Your task to perform on an android device: Open location settings Image 0: 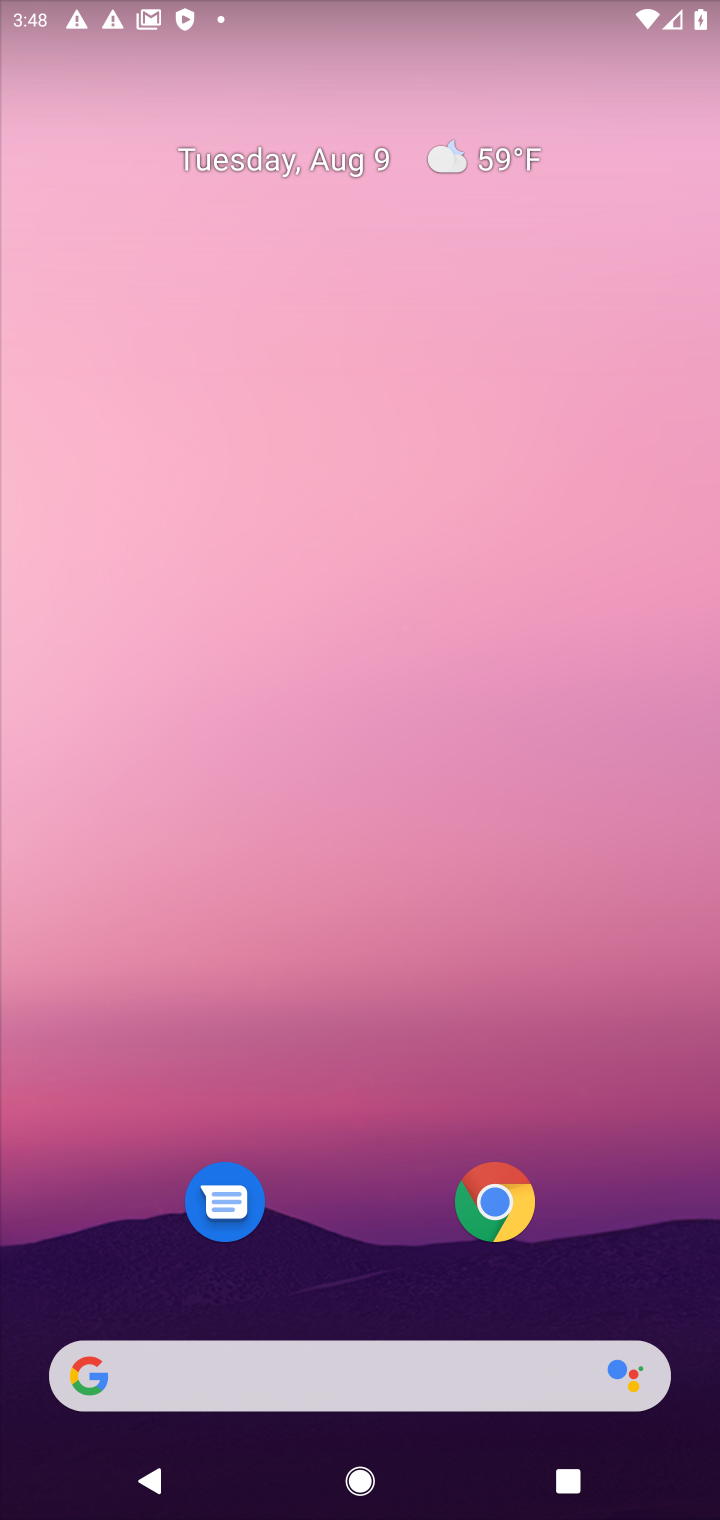
Step 0: drag from (371, 1296) to (438, 52)
Your task to perform on an android device: Open location settings Image 1: 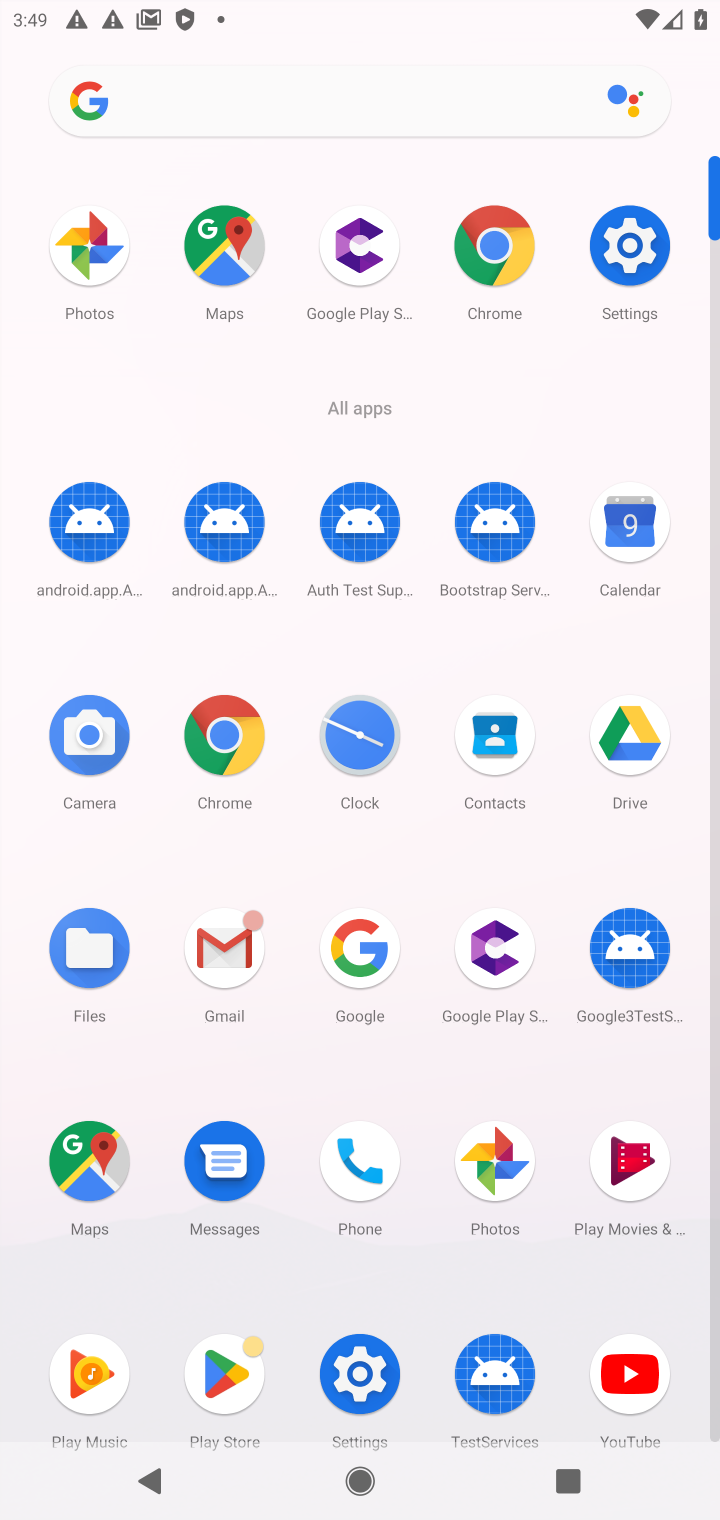
Step 1: click (624, 232)
Your task to perform on an android device: Open location settings Image 2: 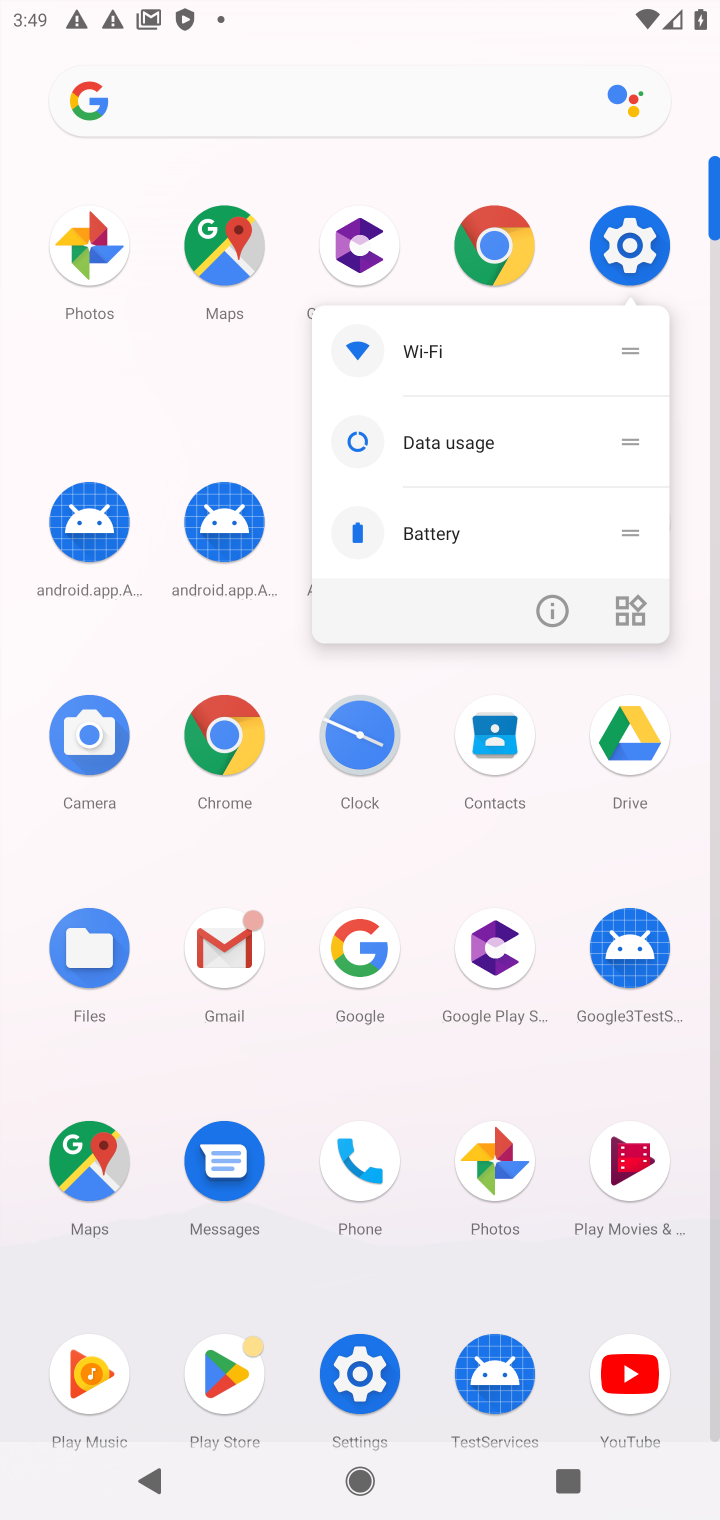
Step 2: click (641, 225)
Your task to perform on an android device: Open location settings Image 3: 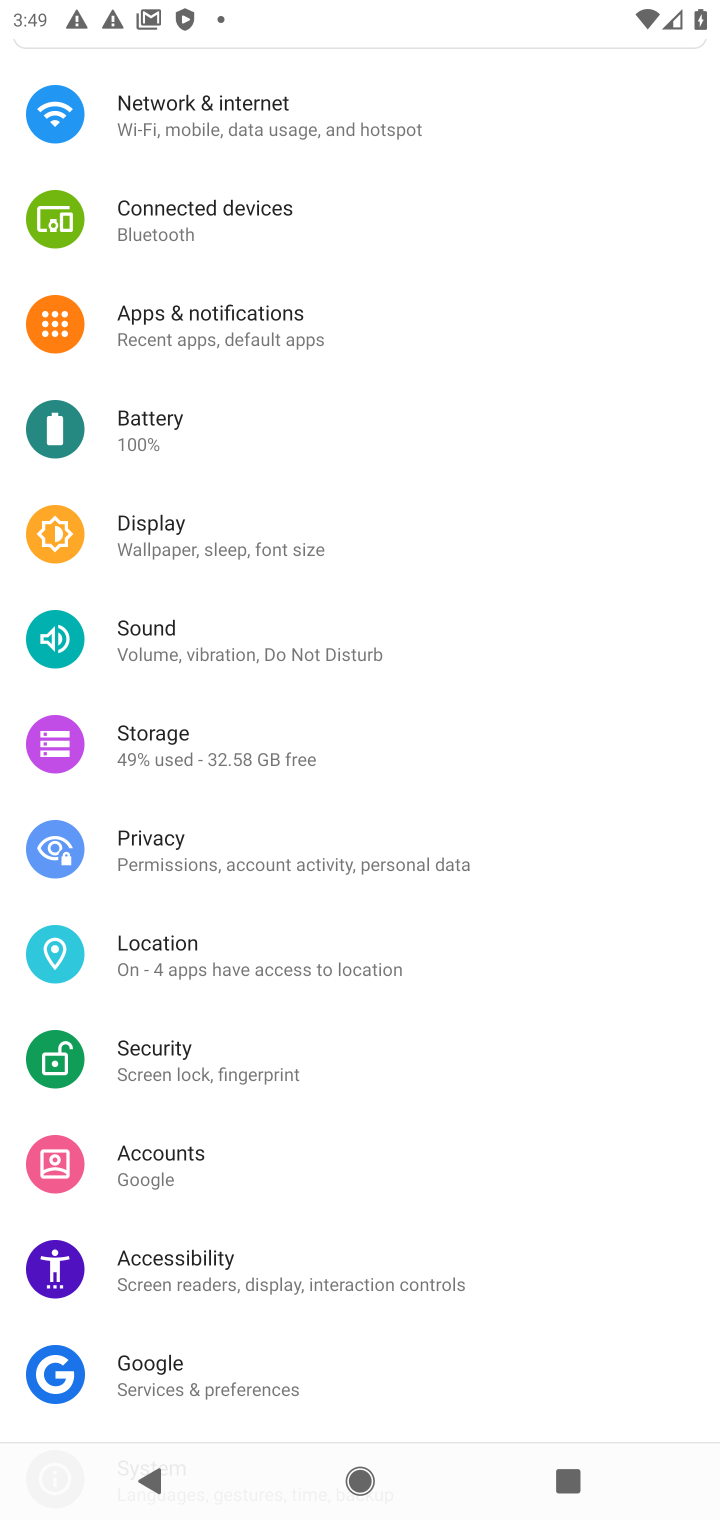
Step 3: click (213, 944)
Your task to perform on an android device: Open location settings Image 4: 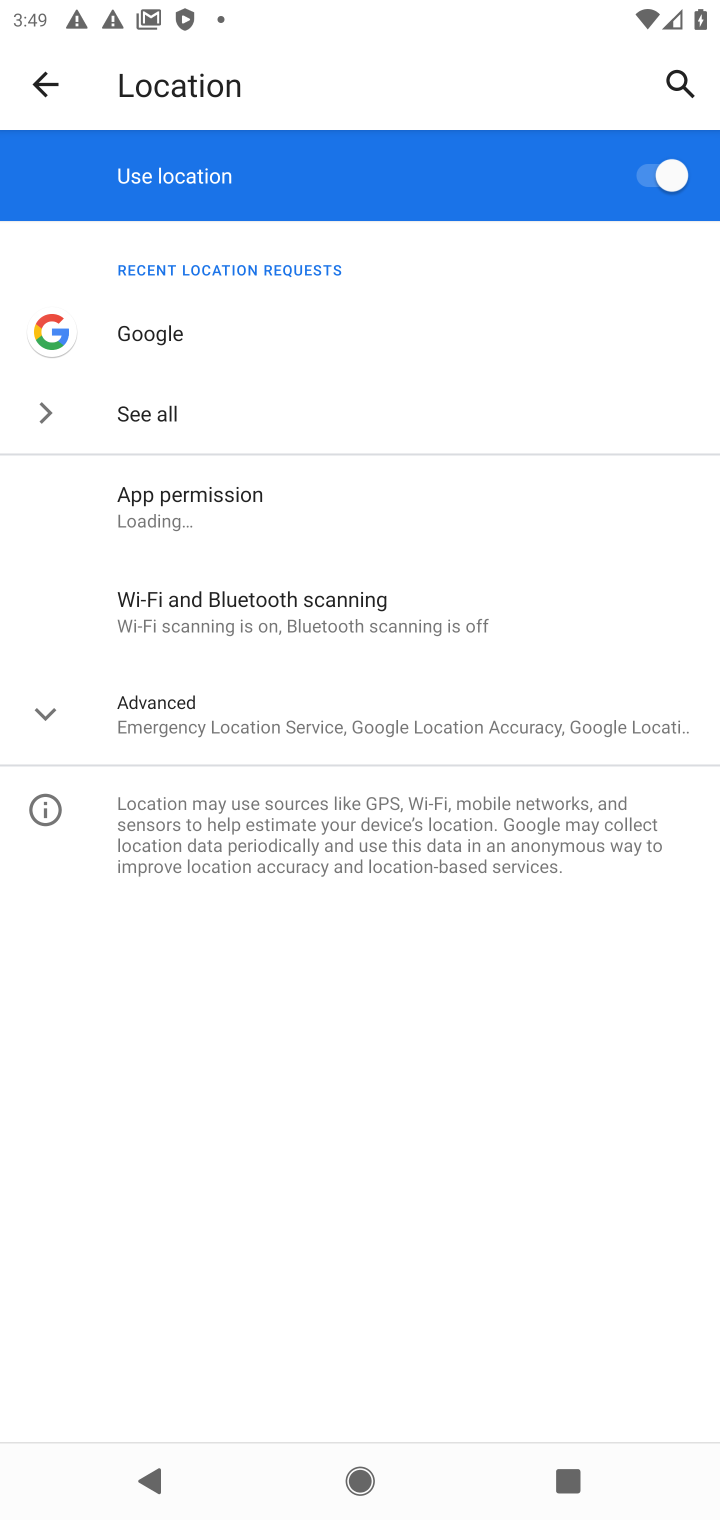
Step 4: click (63, 713)
Your task to perform on an android device: Open location settings Image 5: 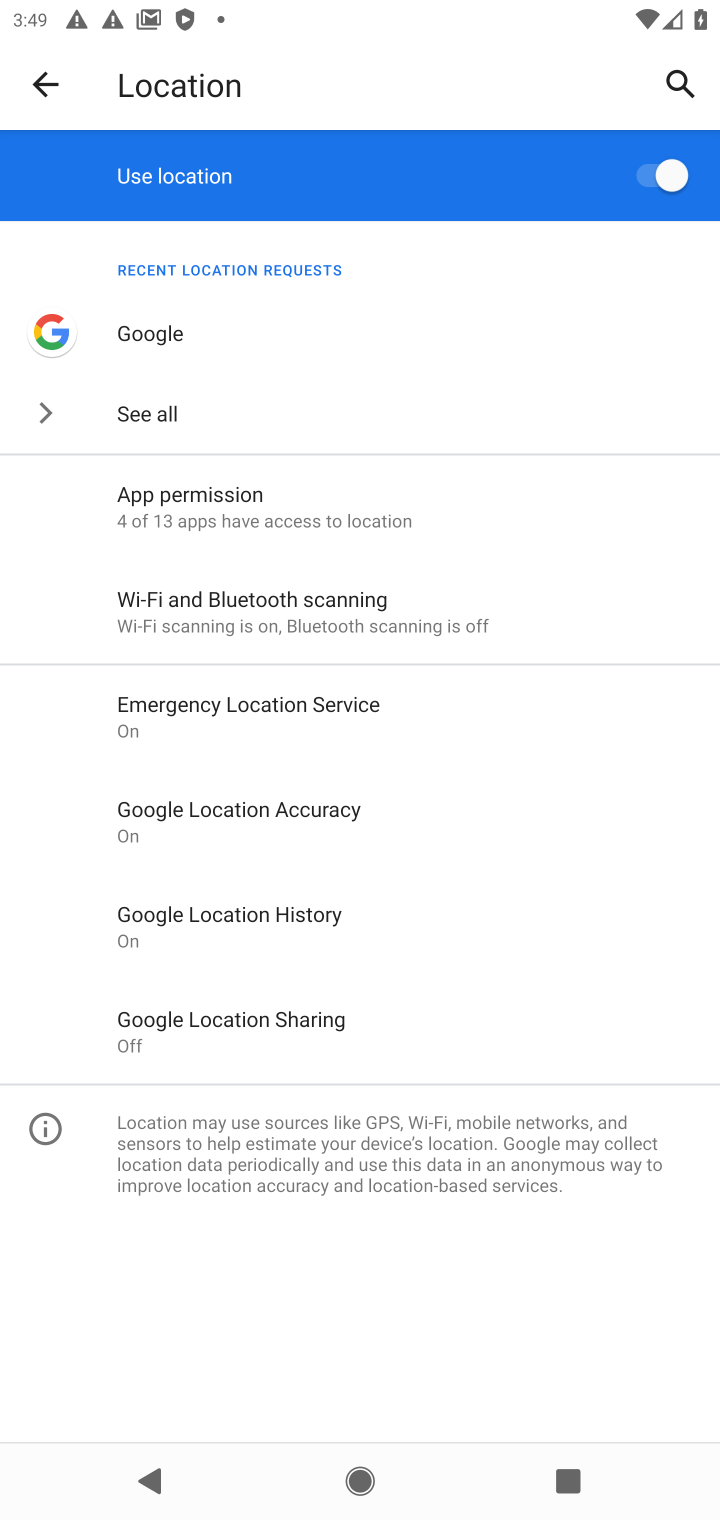
Step 5: task complete